Your task to perform on an android device: Is it going to rain tomorrow? Image 0: 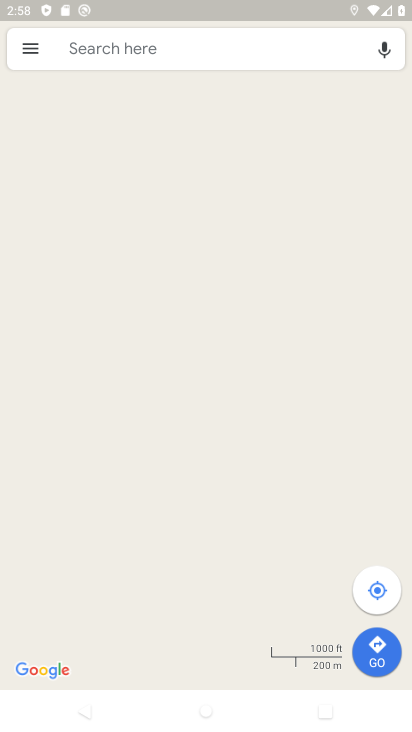
Step 0: press home button
Your task to perform on an android device: Is it going to rain tomorrow? Image 1: 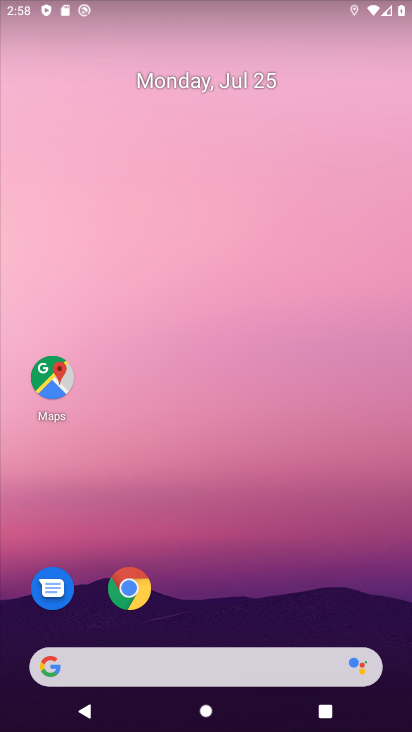
Step 1: click (141, 590)
Your task to perform on an android device: Is it going to rain tomorrow? Image 2: 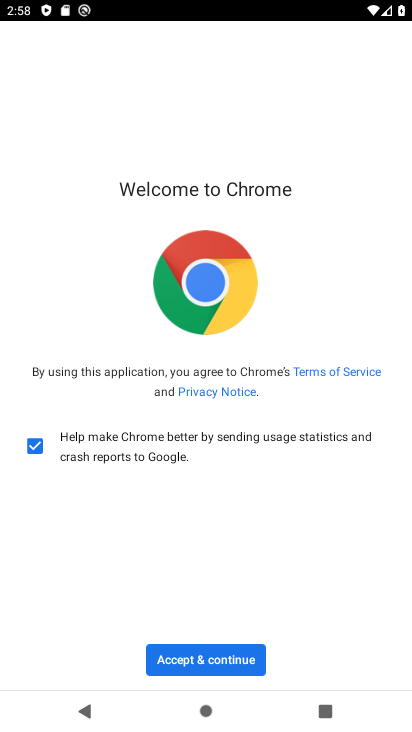
Step 2: click (203, 665)
Your task to perform on an android device: Is it going to rain tomorrow? Image 3: 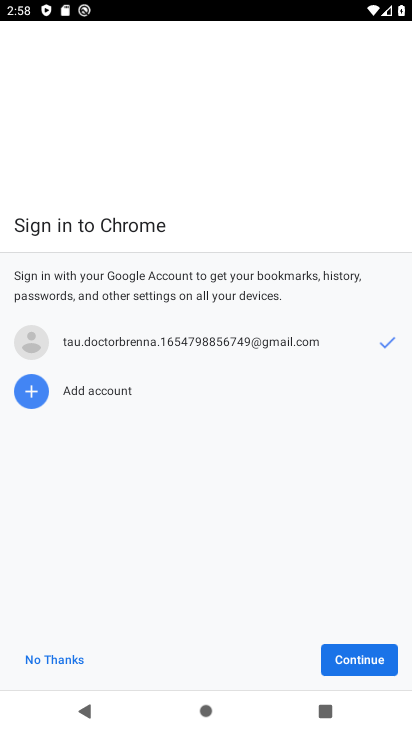
Step 3: click (338, 655)
Your task to perform on an android device: Is it going to rain tomorrow? Image 4: 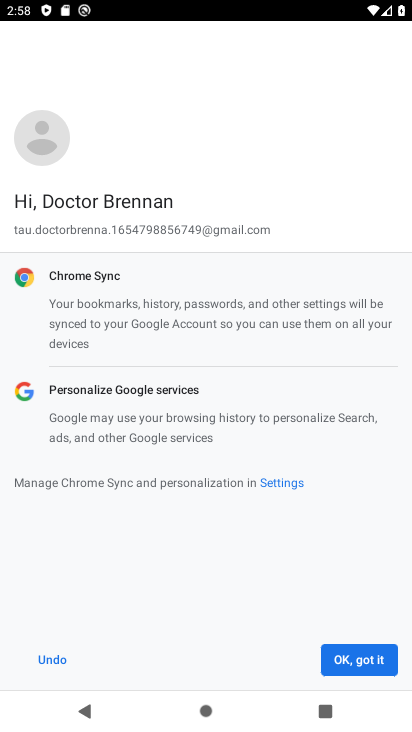
Step 4: click (358, 662)
Your task to perform on an android device: Is it going to rain tomorrow? Image 5: 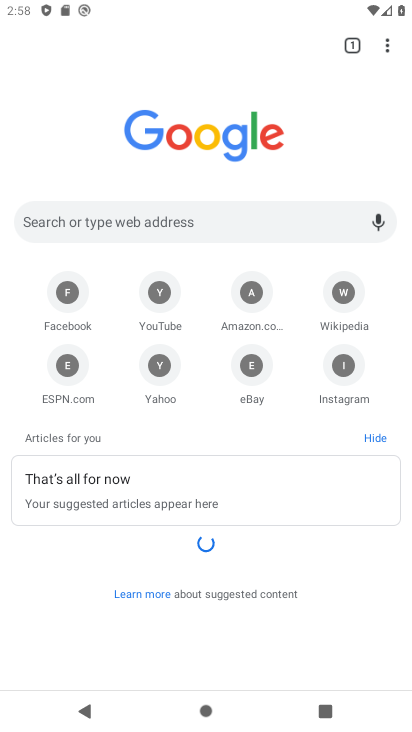
Step 5: click (212, 223)
Your task to perform on an android device: Is it going to rain tomorrow? Image 6: 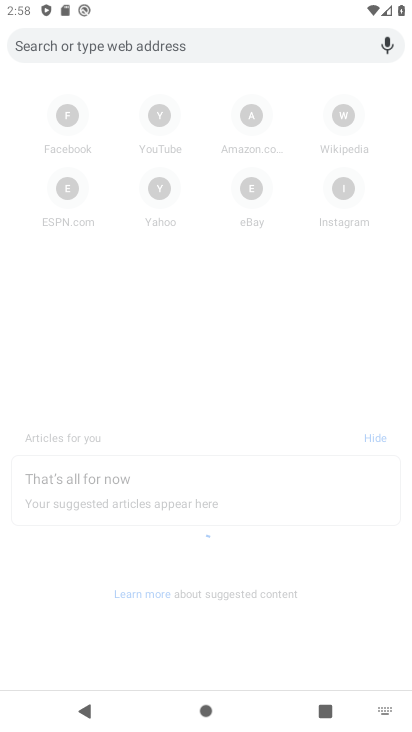
Step 6: type "Is it going to rain tomorrow? "
Your task to perform on an android device: Is it going to rain tomorrow? Image 7: 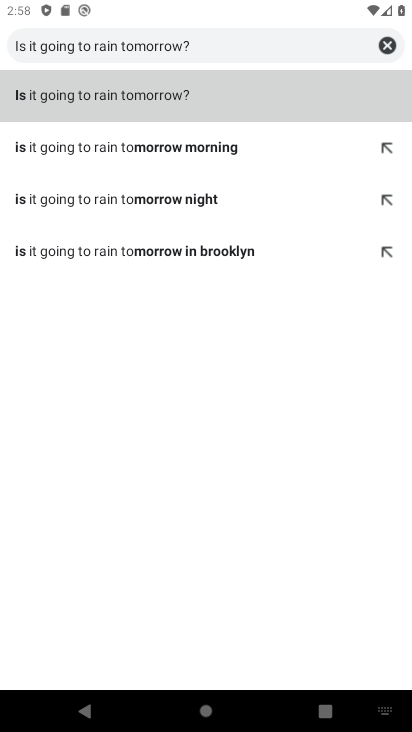
Step 7: click (221, 82)
Your task to perform on an android device: Is it going to rain tomorrow? Image 8: 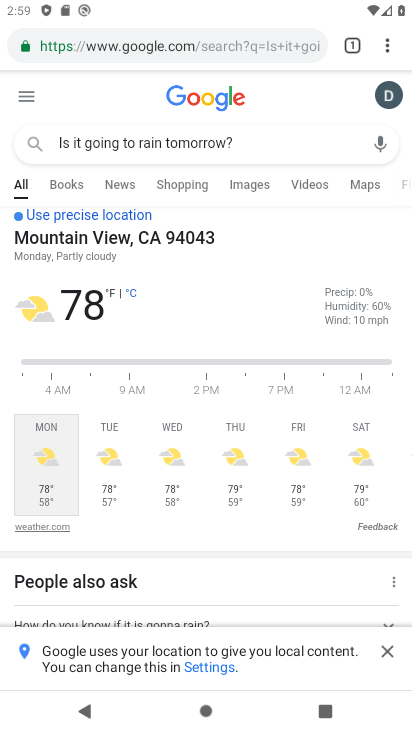
Step 8: task complete